Your task to perform on an android device: turn on javascript in the chrome app Image 0: 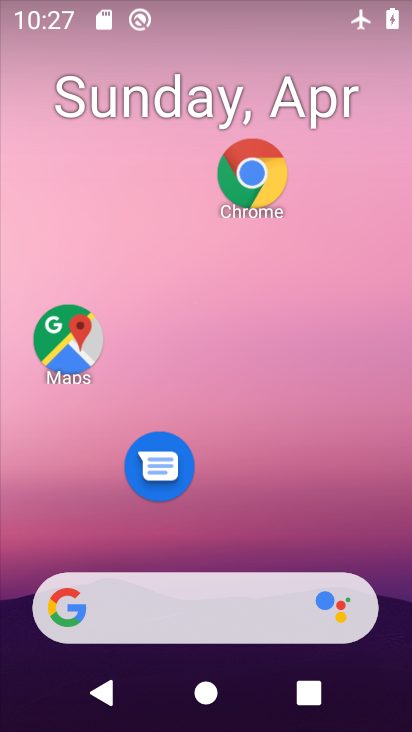
Step 0: drag from (341, 491) to (386, 68)
Your task to perform on an android device: turn on javascript in the chrome app Image 1: 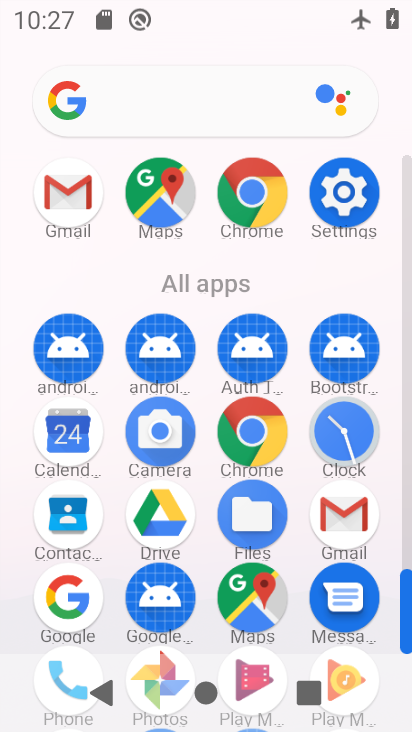
Step 1: click (279, 207)
Your task to perform on an android device: turn on javascript in the chrome app Image 2: 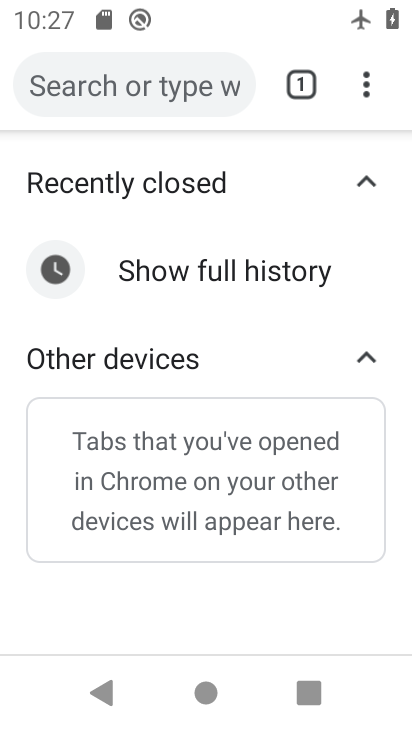
Step 2: click (359, 84)
Your task to perform on an android device: turn on javascript in the chrome app Image 3: 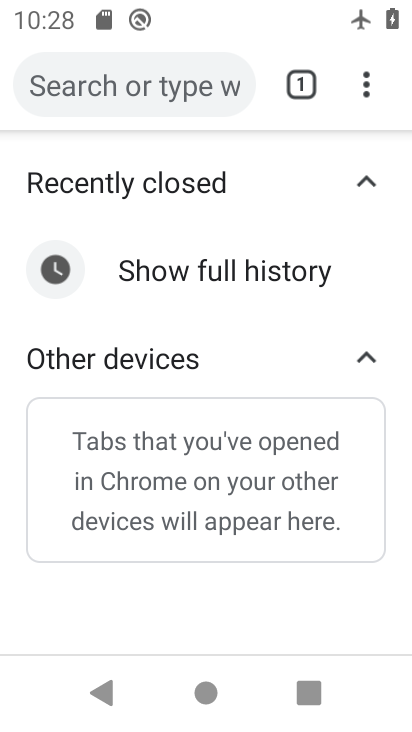
Step 3: drag from (365, 91) to (234, 524)
Your task to perform on an android device: turn on javascript in the chrome app Image 4: 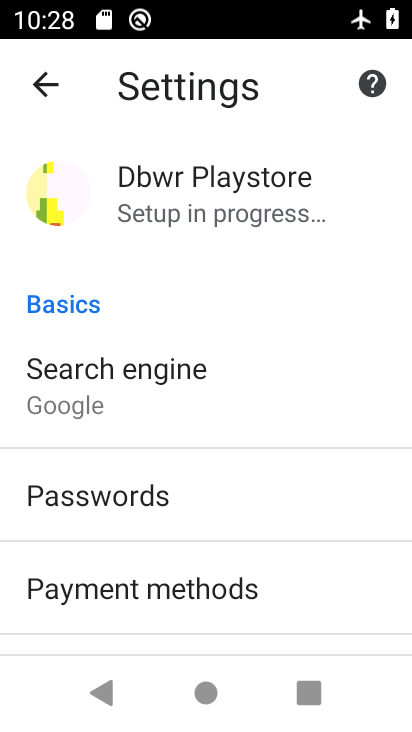
Step 4: drag from (211, 515) to (282, 156)
Your task to perform on an android device: turn on javascript in the chrome app Image 5: 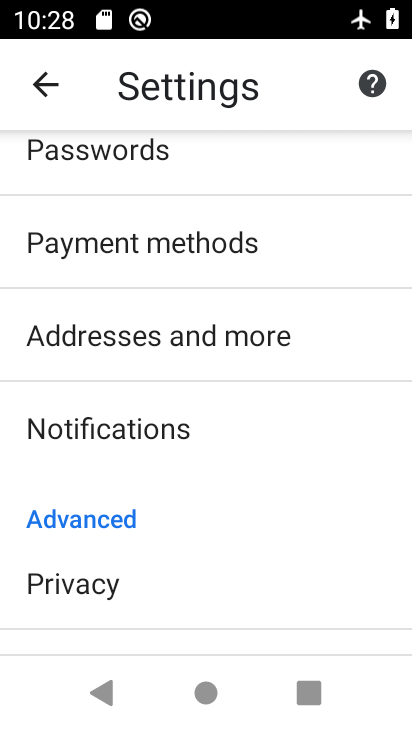
Step 5: drag from (207, 593) to (235, 245)
Your task to perform on an android device: turn on javascript in the chrome app Image 6: 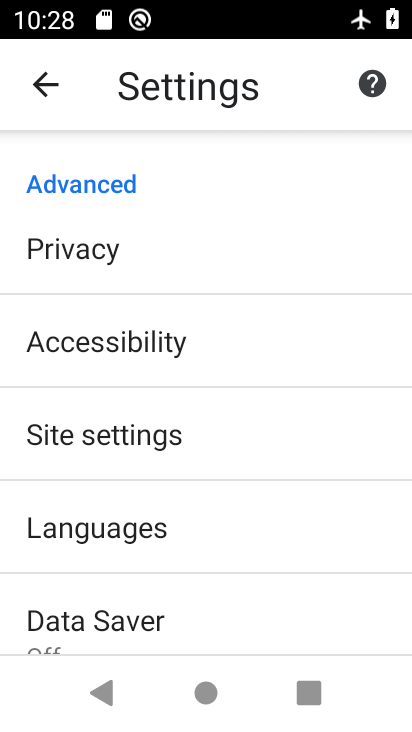
Step 6: click (144, 426)
Your task to perform on an android device: turn on javascript in the chrome app Image 7: 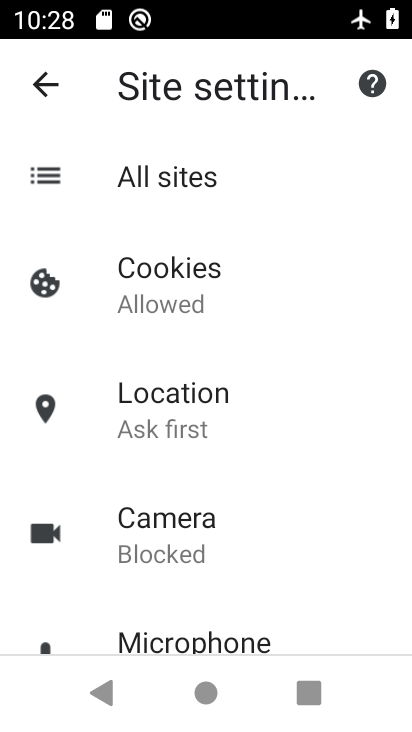
Step 7: drag from (184, 537) to (237, 253)
Your task to perform on an android device: turn on javascript in the chrome app Image 8: 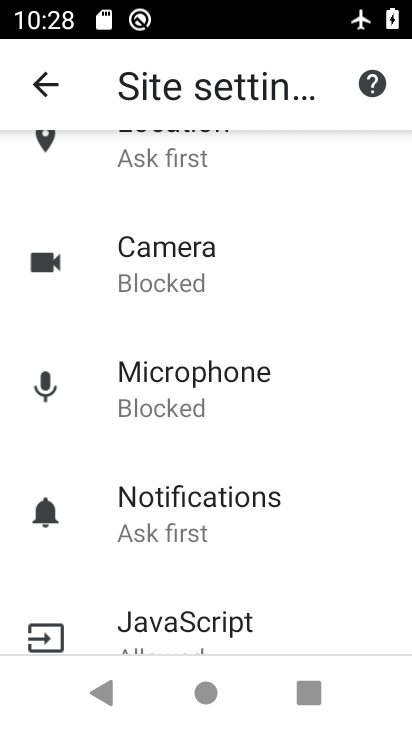
Step 8: drag from (206, 579) to (298, 270)
Your task to perform on an android device: turn on javascript in the chrome app Image 9: 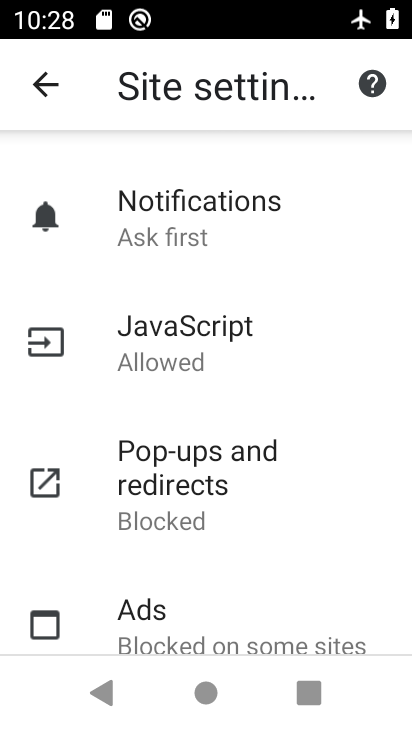
Step 9: click (206, 334)
Your task to perform on an android device: turn on javascript in the chrome app Image 10: 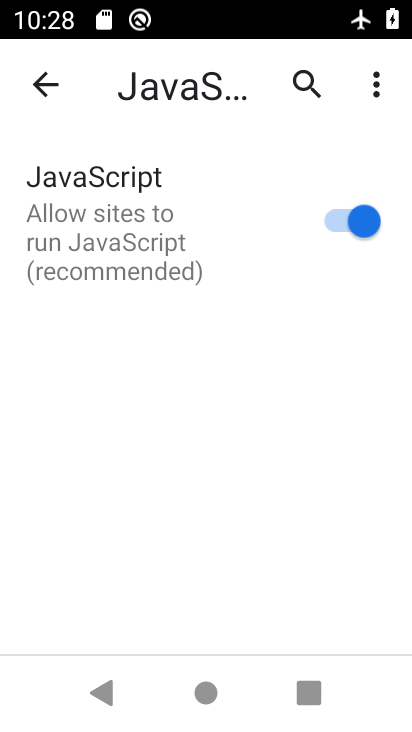
Step 10: task complete